Your task to perform on an android device: Open the calendar app, open the side menu, and click the "Day" option Image 0: 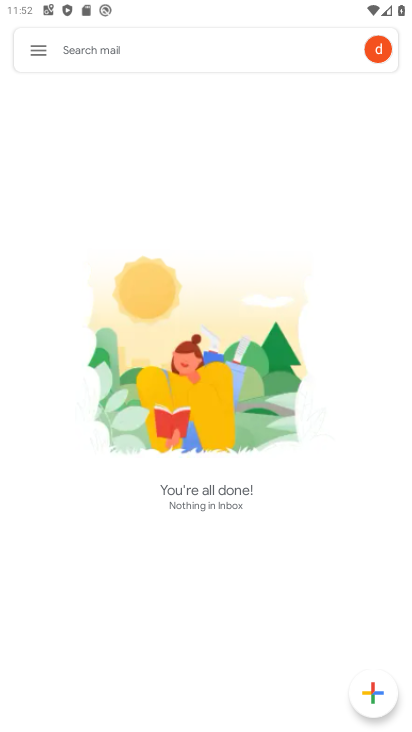
Step 0: press home button
Your task to perform on an android device: Open the calendar app, open the side menu, and click the "Day" option Image 1: 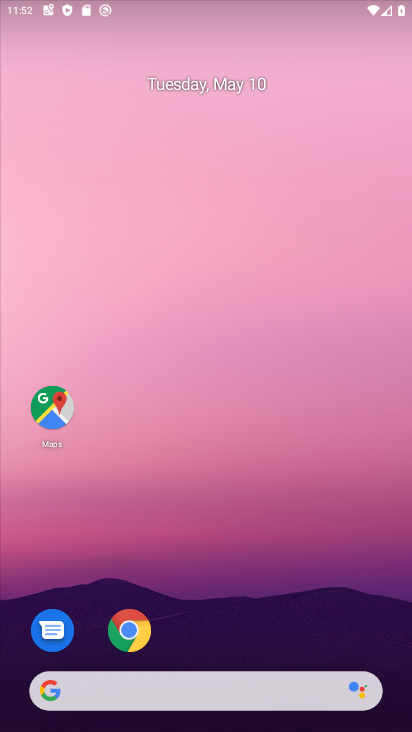
Step 1: drag from (302, 604) to (184, 133)
Your task to perform on an android device: Open the calendar app, open the side menu, and click the "Day" option Image 2: 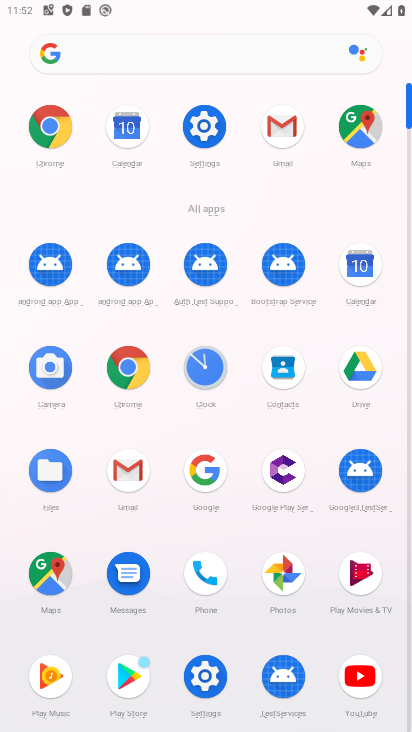
Step 2: click (361, 269)
Your task to perform on an android device: Open the calendar app, open the side menu, and click the "Day" option Image 3: 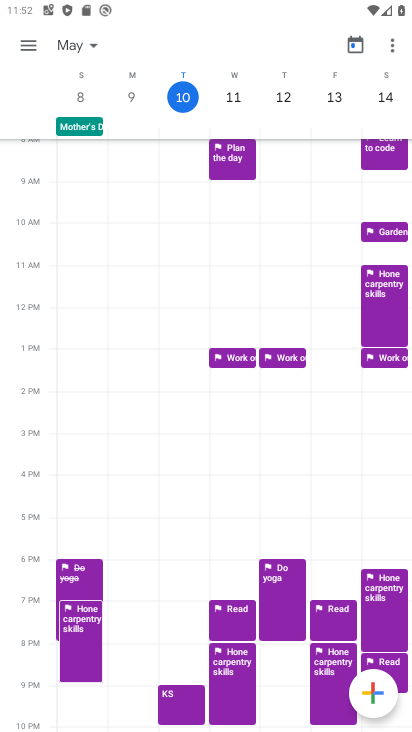
Step 3: click (24, 41)
Your task to perform on an android device: Open the calendar app, open the side menu, and click the "Day" option Image 4: 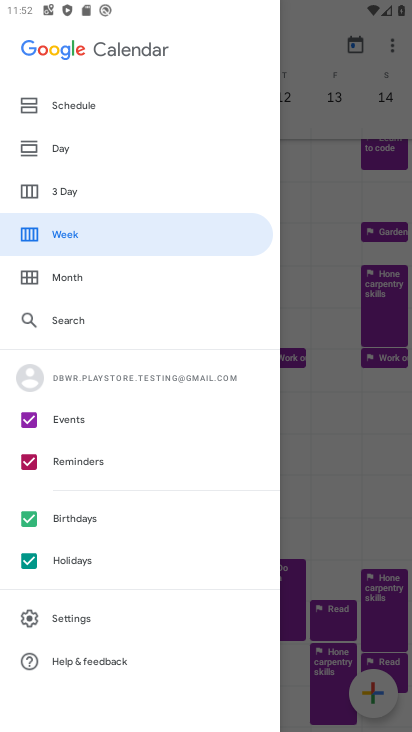
Step 4: click (71, 156)
Your task to perform on an android device: Open the calendar app, open the side menu, and click the "Day" option Image 5: 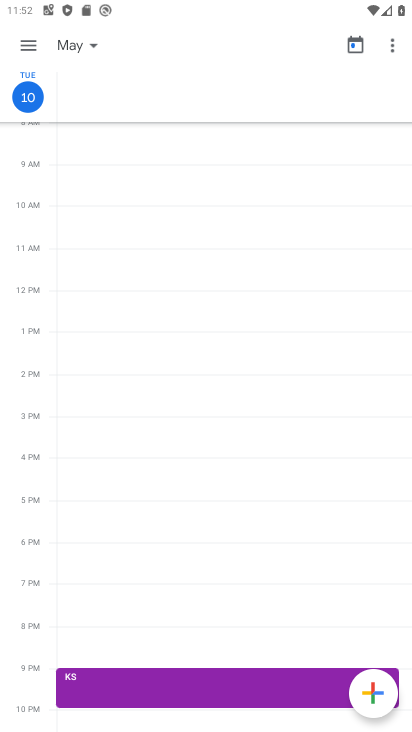
Step 5: task complete